Your task to perform on an android device: delete a single message in the gmail app Image 0: 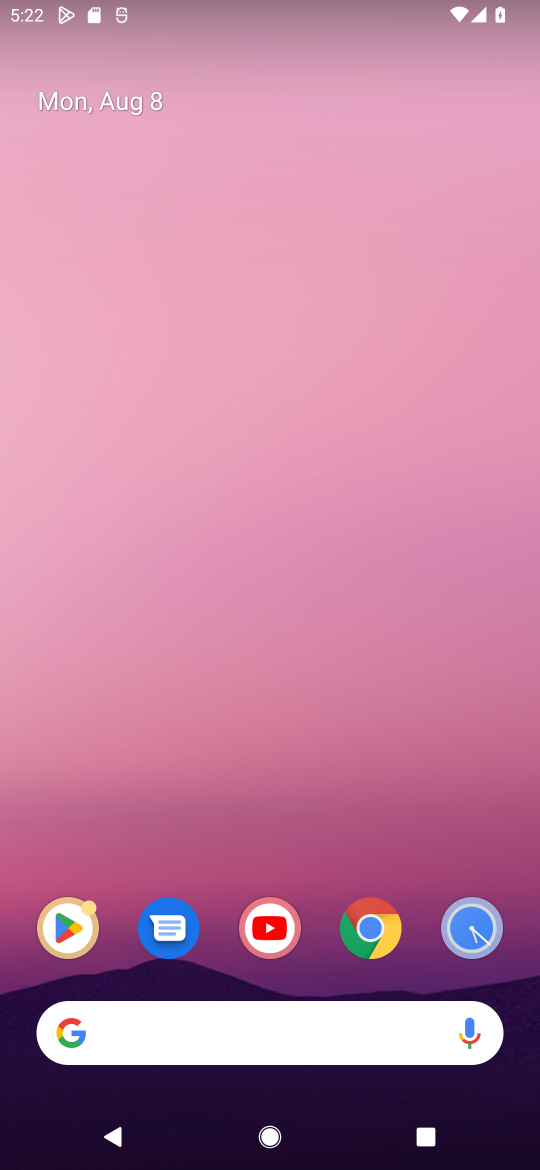
Step 0: drag from (207, 947) to (237, 285)
Your task to perform on an android device: delete a single message in the gmail app Image 1: 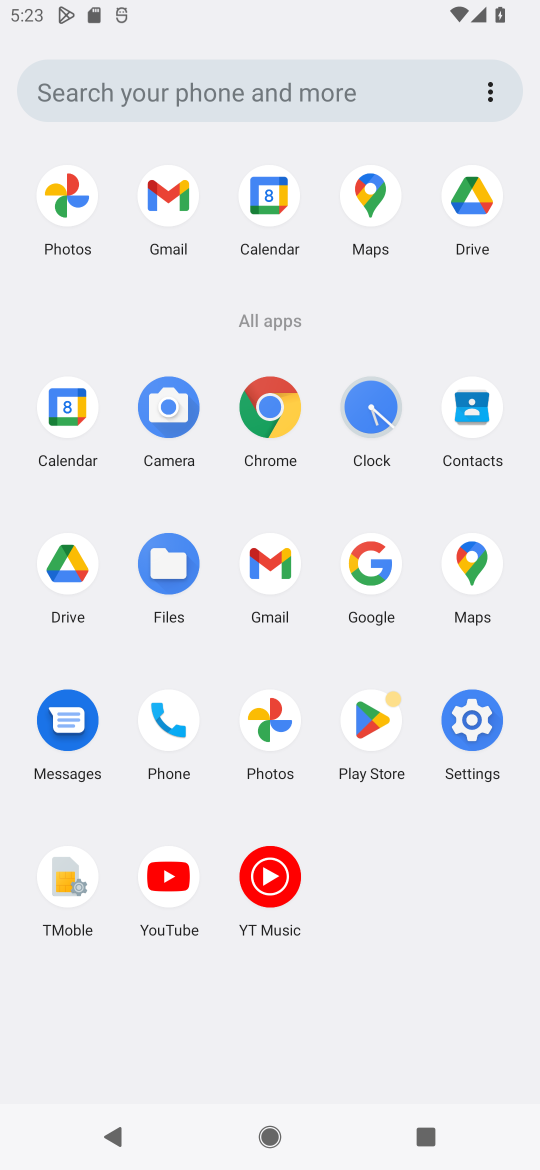
Step 1: click (268, 573)
Your task to perform on an android device: delete a single message in the gmail app Image 2: 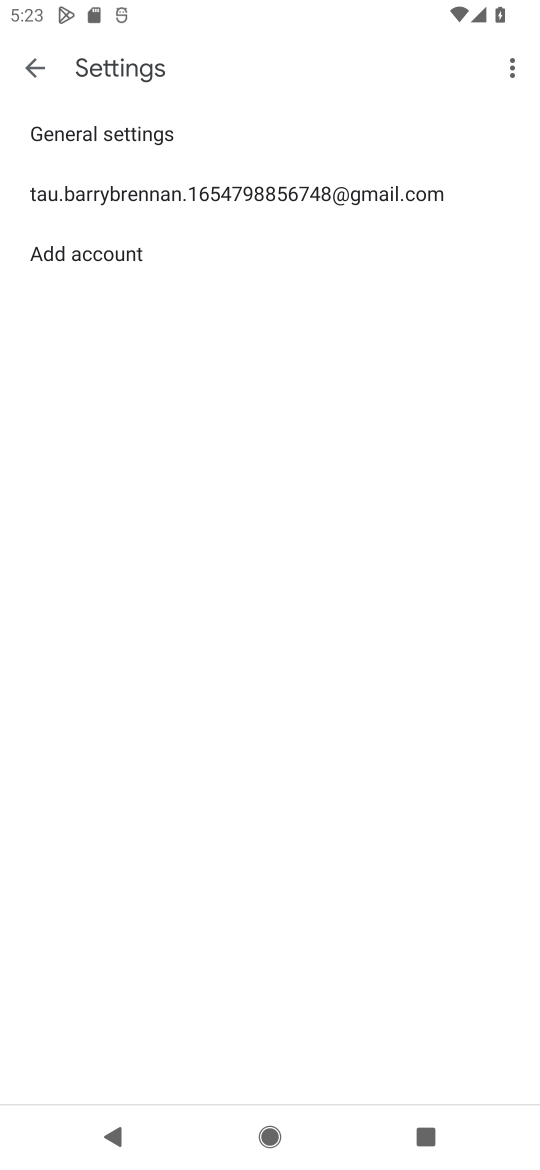
Step 2: click (17, 76)
Your task to perform on an android device: delete a single message in the gmail app Image 3: 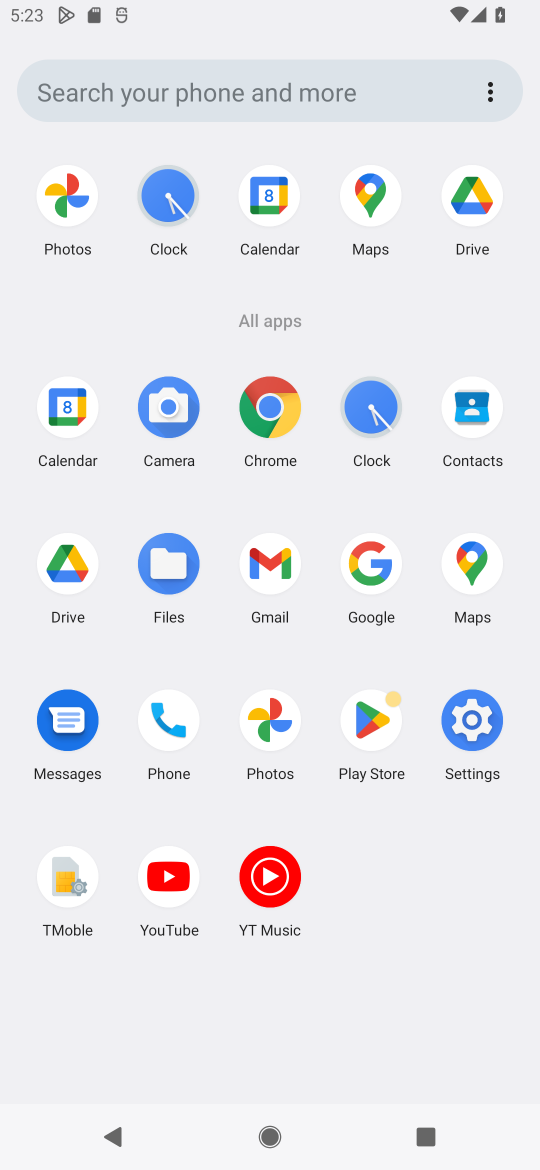
Step 3: click (273, 583)
Your task to perform on an android device: delete a single message in the gmail app Image 4: 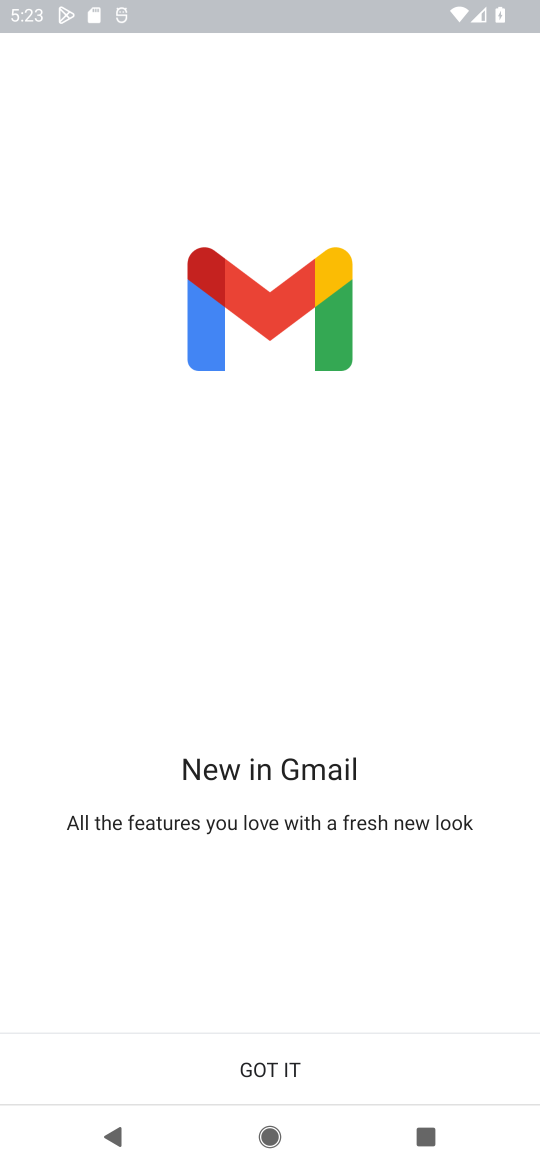
Step 4: click (256, 1075)
Your task to perform on an android device: delete a single message in the gmail app Image 5: 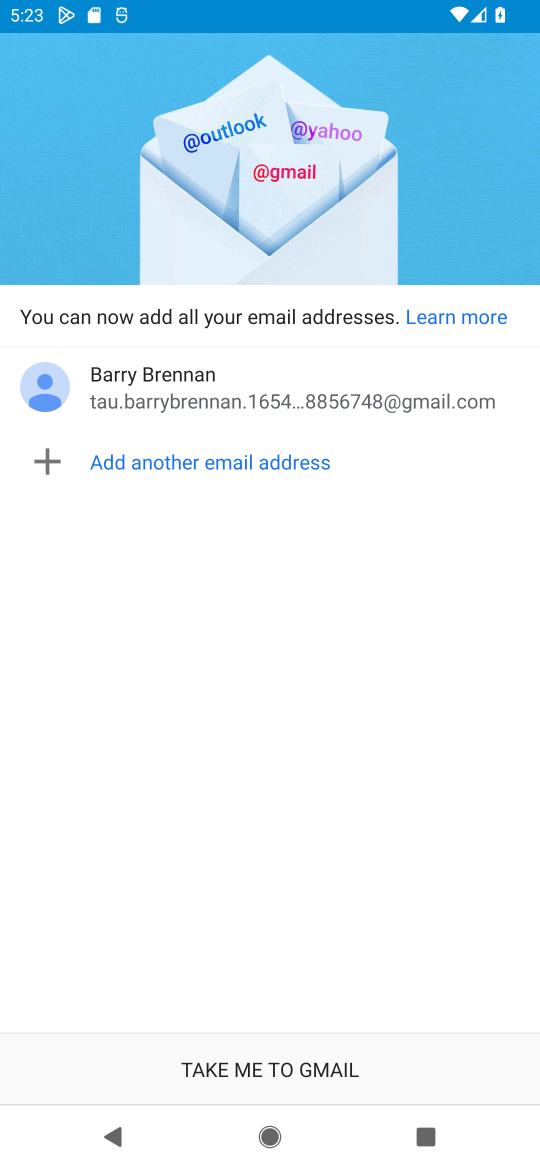
Step 5: click (256, 1075)
Your task to perform on an android device: delete a single message in the gmail app Image 6: 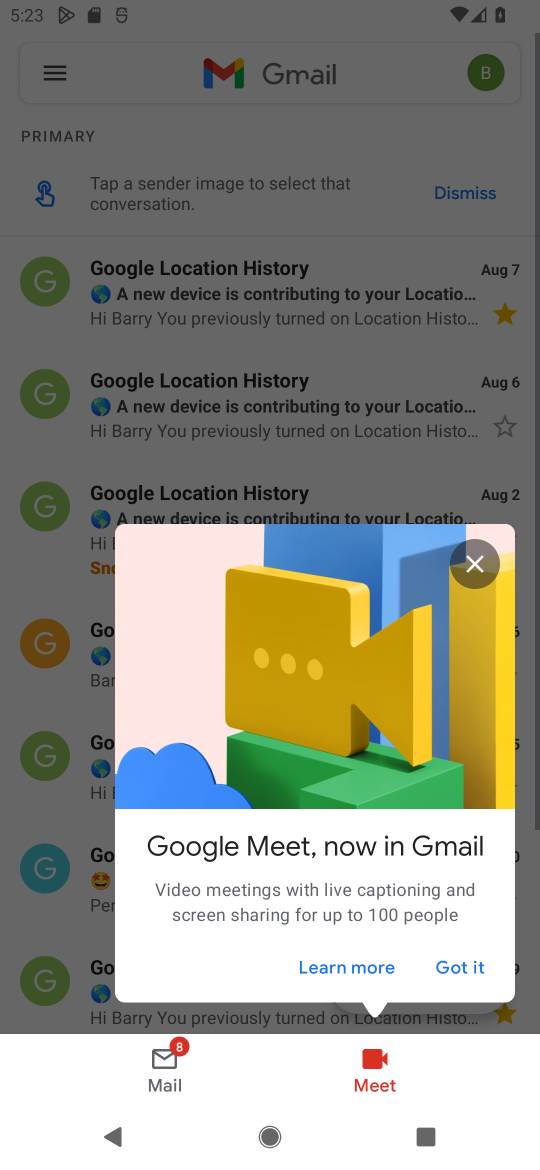
Step 6: click (470, 552)
Your task to perform on an android device: delete a single message in the gmail app Image 7: 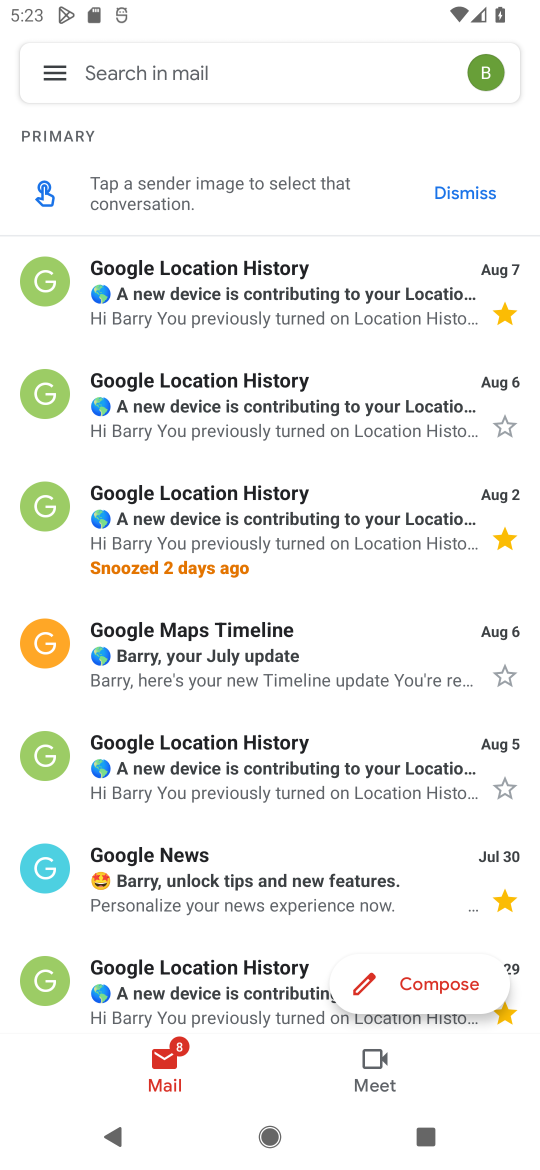
Step 7: click (58, 275)
Your task to perform on an android device: delete a single message in the gmail app Image 8: 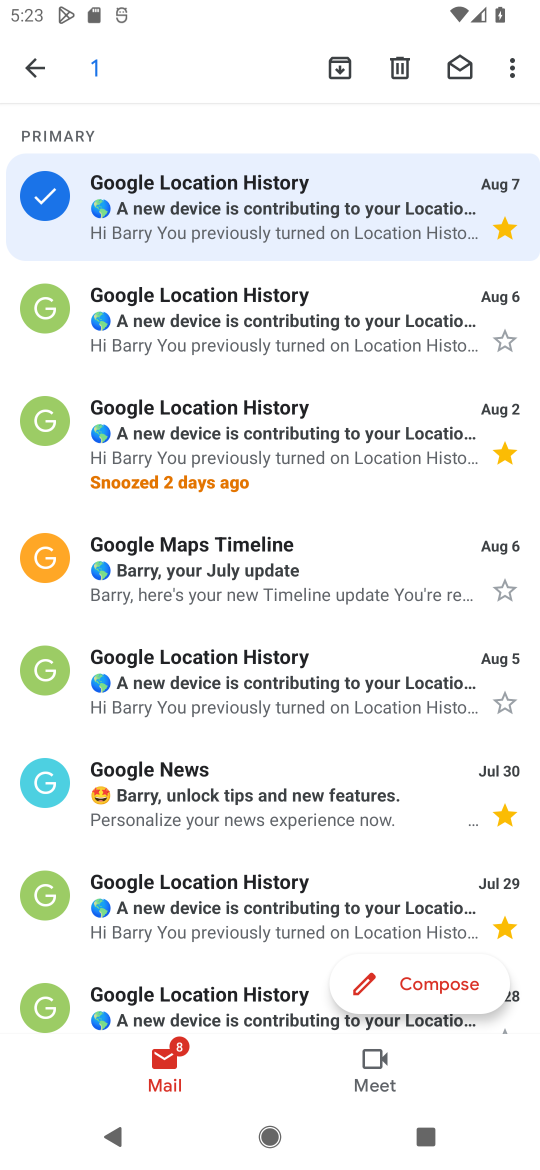
Step 8: click (389, 59)
Your task to perform on an android device: delete a single message in the gmail app Image 9: 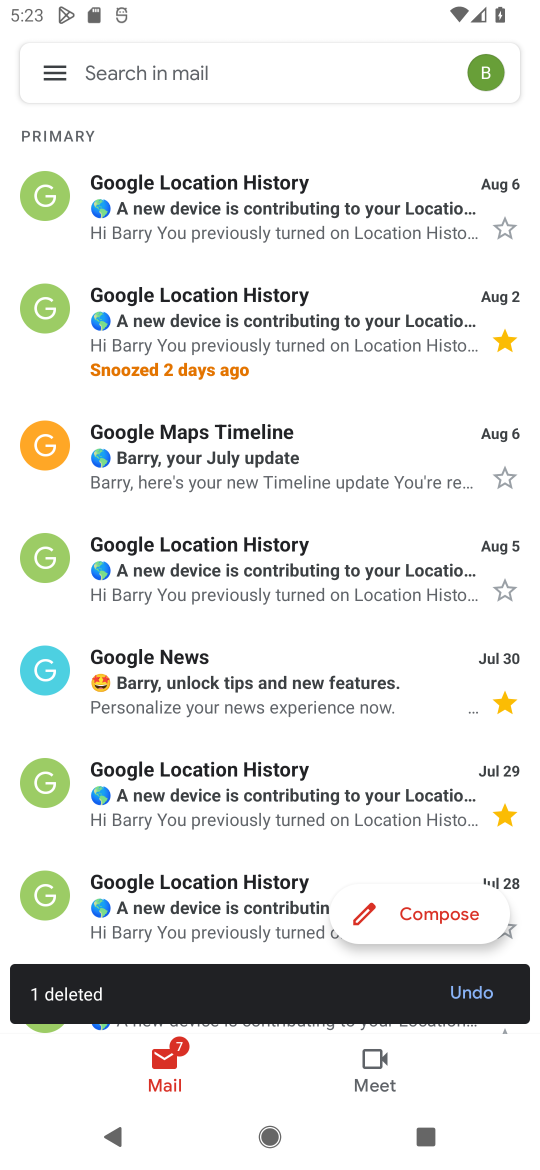
Step 9: task complete